Your task to perform on an android device: turn off wifi Image 0: 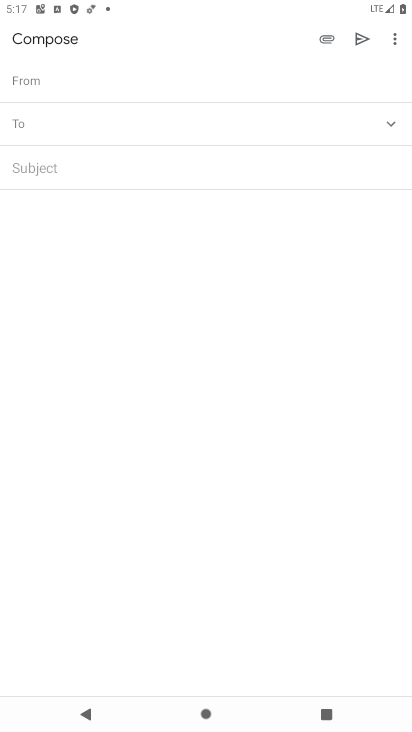
Step 0: drag from (317, 652) to (356, 197)
Your task to perform on an android device: turn off wifi Image 1: 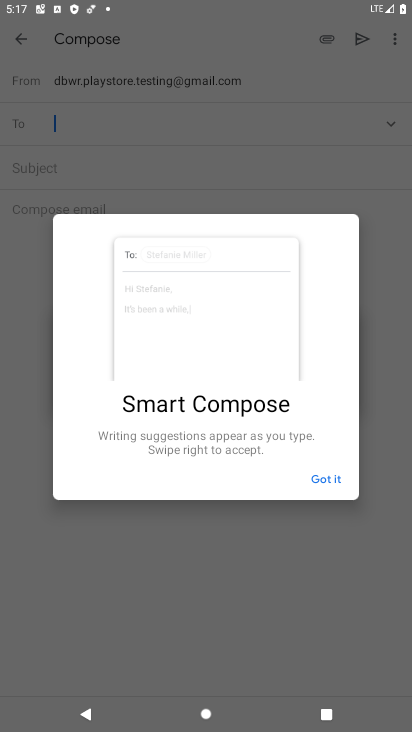
Step 1: press home button
Your task to perform on an android device: turn off wifi Image 2: 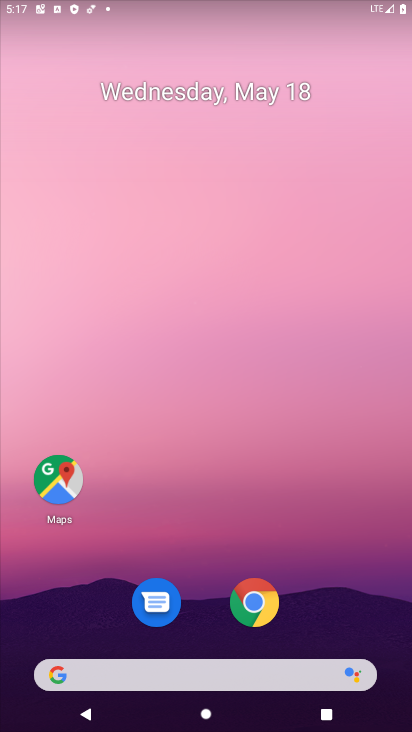
Step 2: drag from (317, 683) to (354, 77)
Your task to perform on an android device: turn off wifi Image 3: 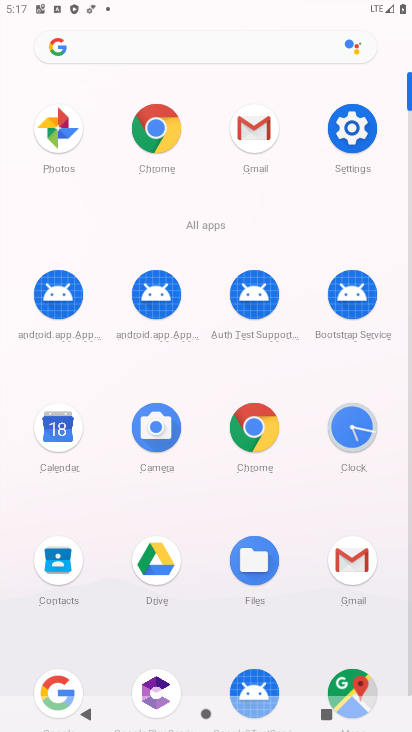
Step 3: click (337, 116)
Your task to perform on an android device: turn off wifi Image 4: 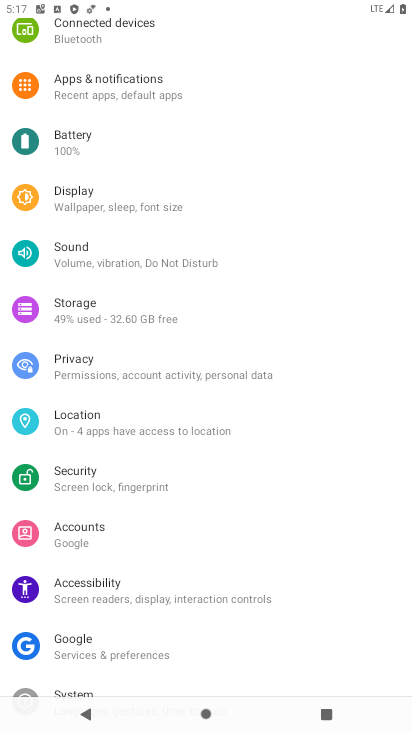
Step 4: drag from (120, 246) to (130, 661)
Your task to perform on an android device: turn off wifi Image 5: 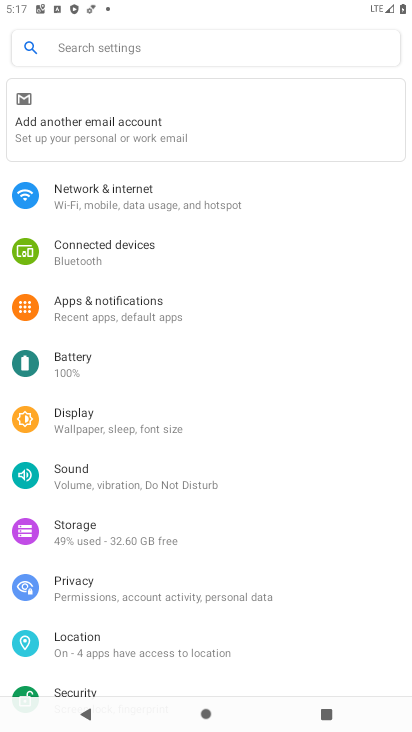
Step 5: click (115, 207)
Your task to perform on an android device: turn off wifi Image 6: 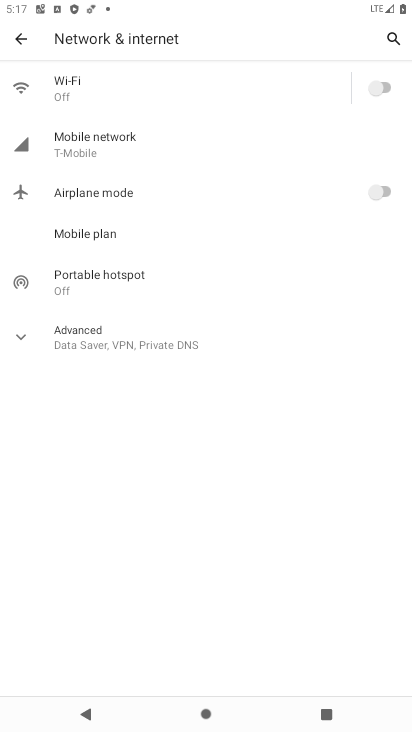
Step 6: task complete